Your task to perform on an android device: change notifications settings Image 0: 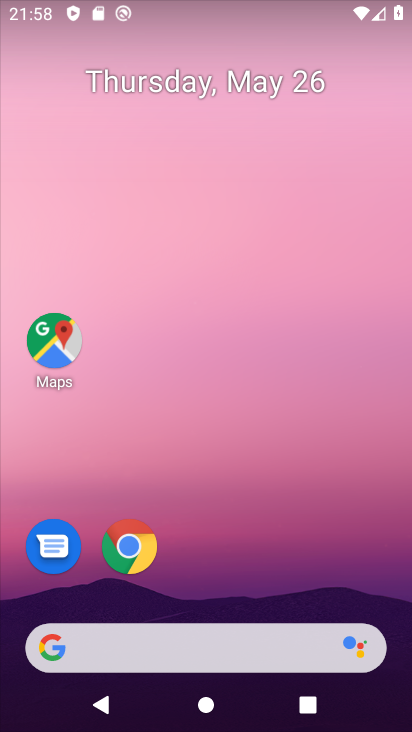
Step 0: drag from (299, 564) to (280, 72)
Your task to perform on an android device: change notifications settings Image 1: 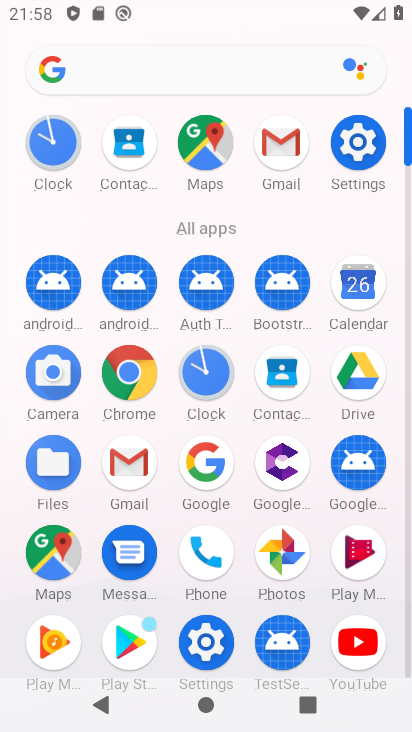
Step 1: click (374, 141)
Your task to perform on an android device: change notifications settings Image 2: 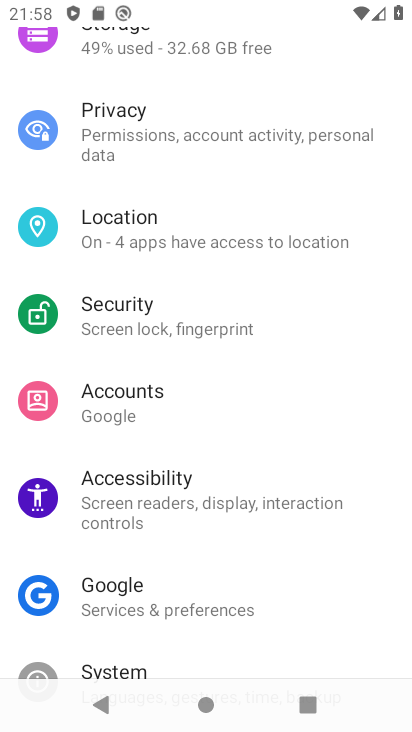
Step 2: drag from (281, 346) to (191, 722)
Your task to perform on an android device: change notifications settings Image 3: 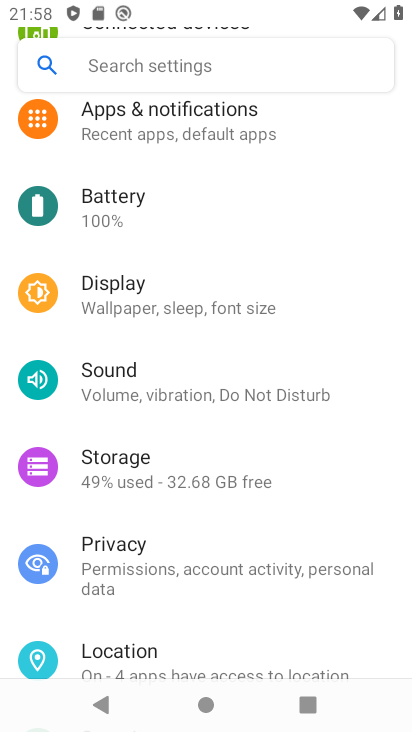
Step 3: click (187, 117)
Your task to perform on an android device: change notifications settings Image 4: 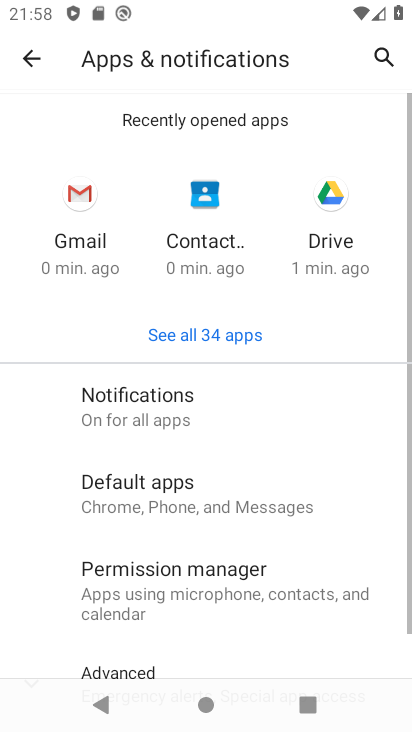
Step 4: click (170, 397)
Your task to perform on an android device: change notifications settings Image 5: 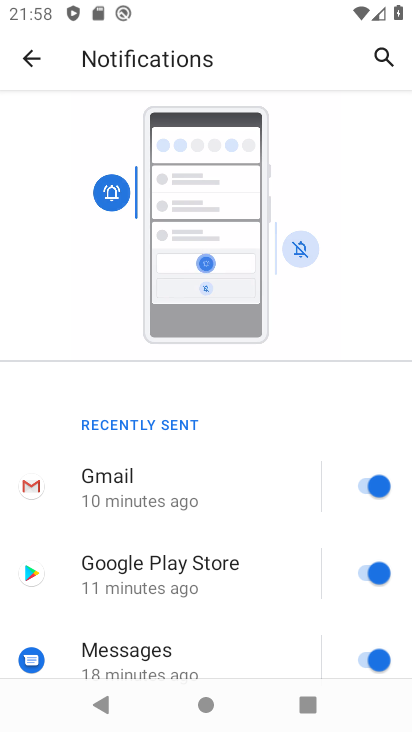
Step 5: drag from (278, 528) to (307, 272)
Your task to perform on an android device: change notifications settings Image 6: 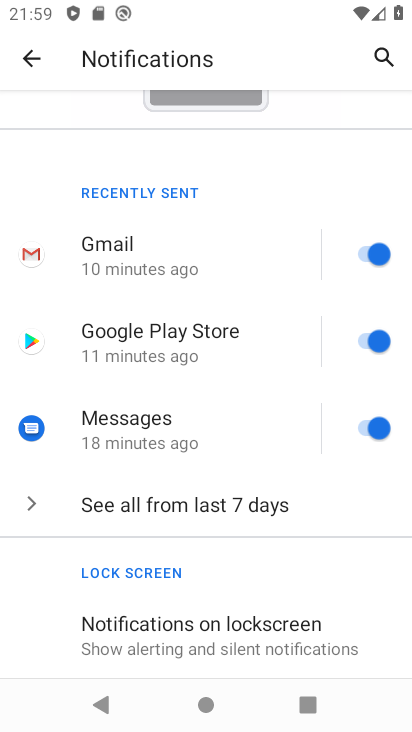
Step 6: click (68, 631)
Your task to perform on an android device: change notifications settings Image 7: 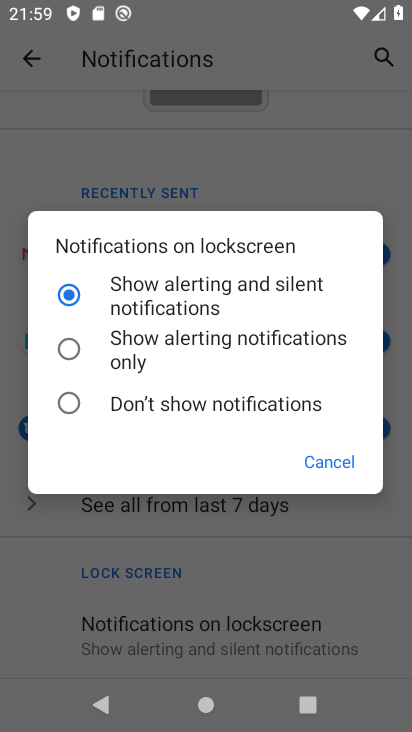
Step 7: click (72, 629)
Your task to perform on an android device: change notifications settings Image 8: 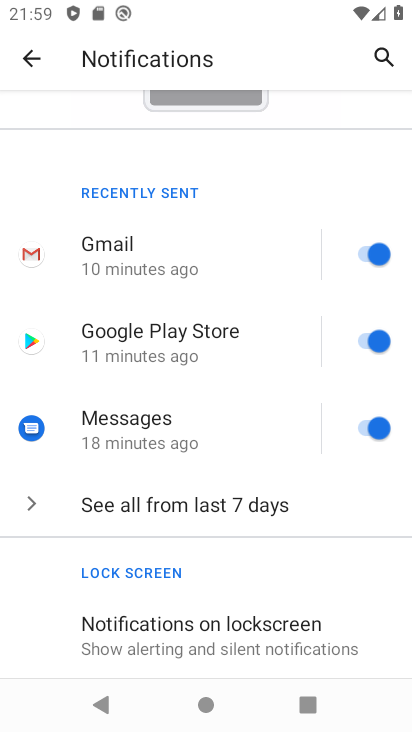
Step 8: drag from (242, 181) to (309, 558)
Your task to perform on an android device: change notifications settings Image 9: 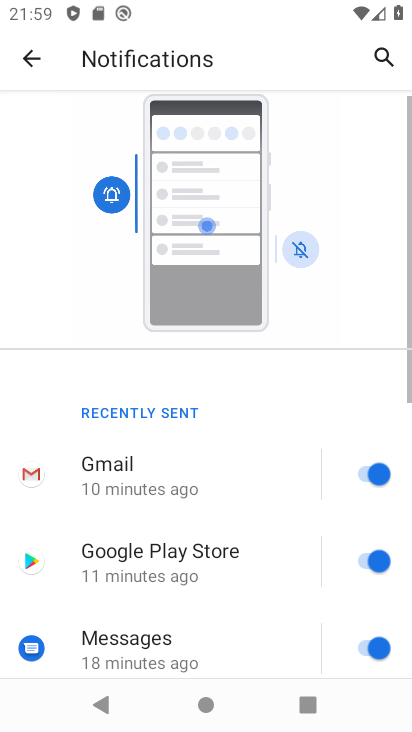
Step 9: click (297, 261)
Your task to perform on an android device: change notifications settings Image 10: 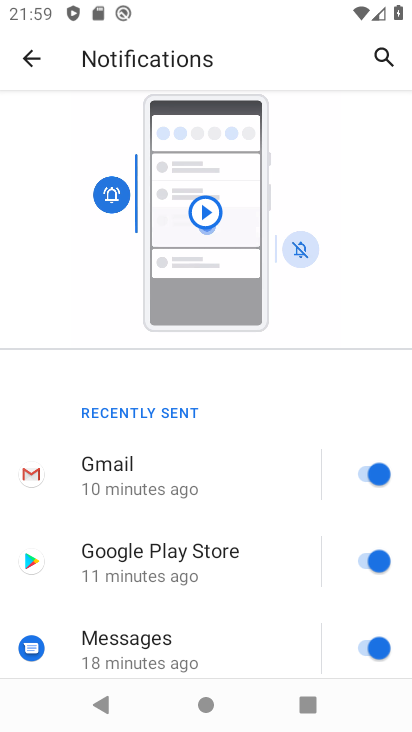
Step 10: click (104, 189)
Your task to perform on an android device: change notifications settings Image 11: 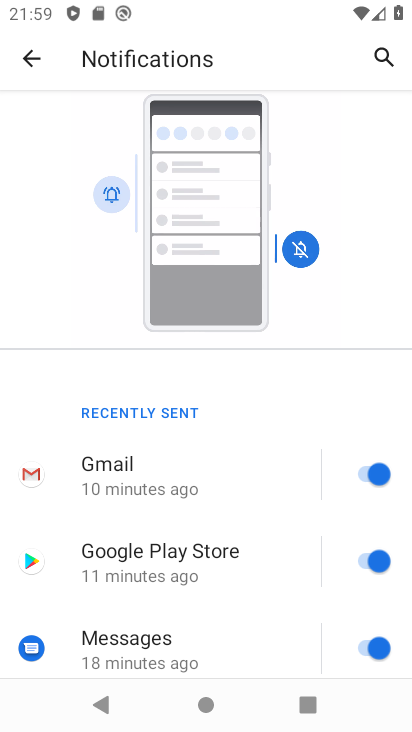
Step 11: click (389, 475)
Your task to perform on an android device: change notifications settings Image 12: 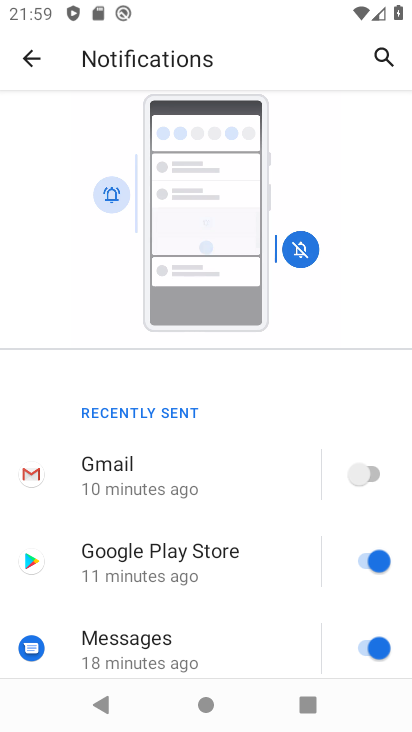
Step 12: task complete